Your task to perform on an android device: Show me popular videos on Youtube Image 0: 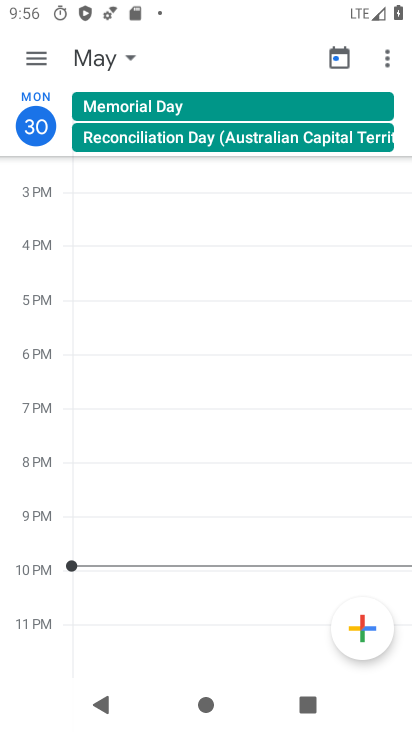
Step 0: press home button
Your task to perform on an android device: Show me popular videos on Youtube Image 1: 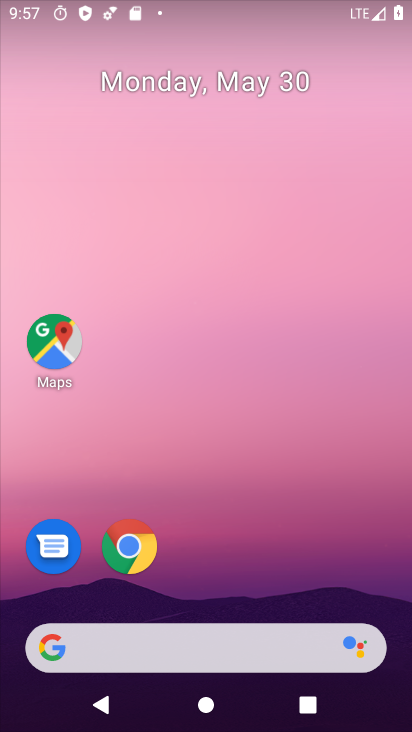
Step 1: drag from (214, 604) to (298, 165)
Your task to perform on an android device: Show me popular videos on Youtube Image 2: 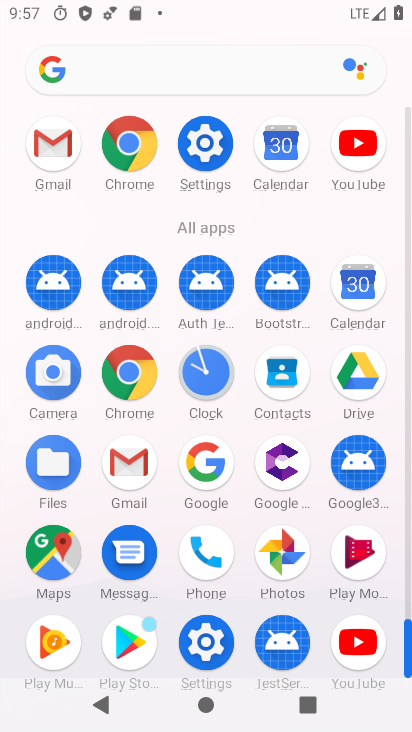
Step 2: click (366, 151)
Your task to perform on an android device: Show me popular videos on Youtube Image 3: 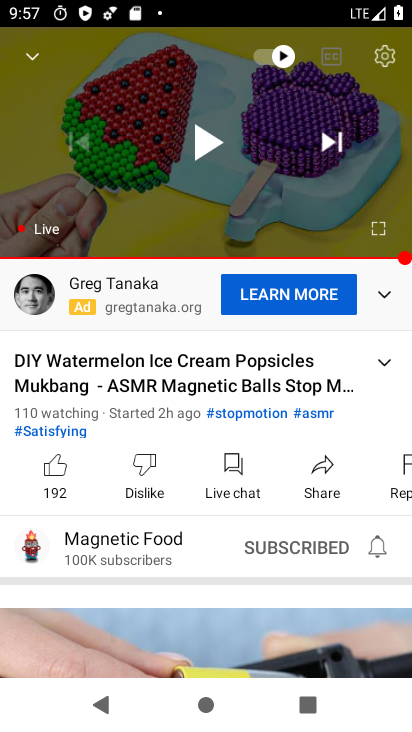
Step 3: click (31, 49)
Your task to perform on an android device: Show me popular videos on Youtube Image 4: 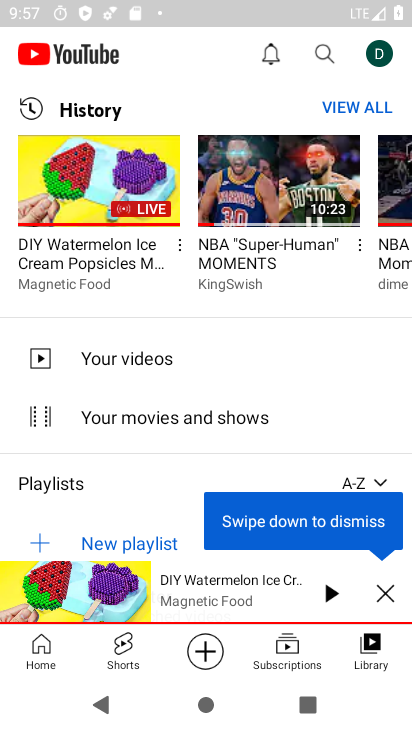
Step 4: click (18, 650)
Your task to perform on an android device: Show me popular videos on Youtube Image 5: 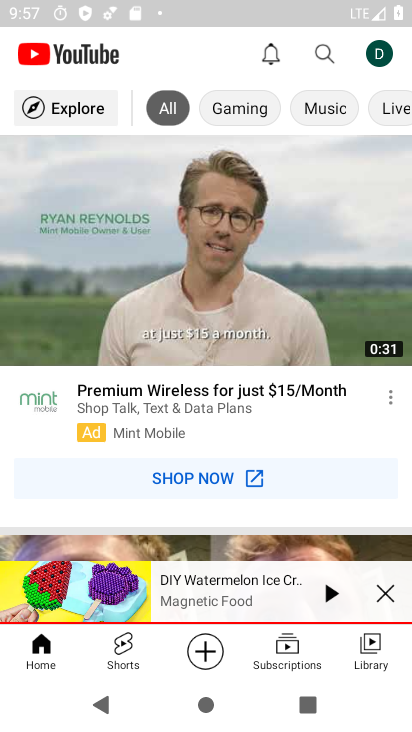
Step 5: click (68, 120)
Your task to perform on an android device: Show me popular videos on Youtube Image 6: 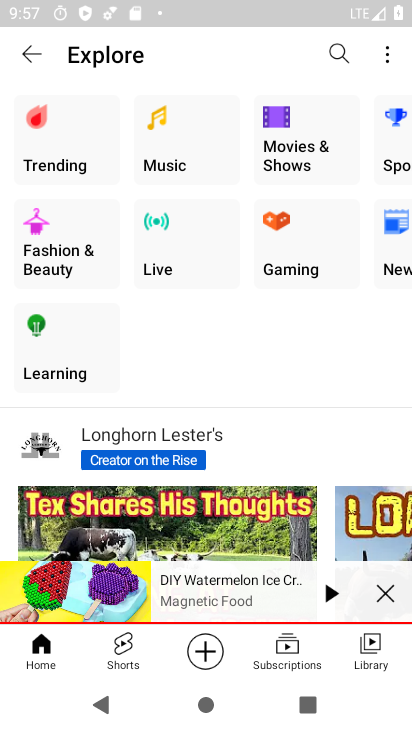
Step 6: click (79, 152)
Your task to perform on an android device: Show me popular videos on Youtube Image 7: 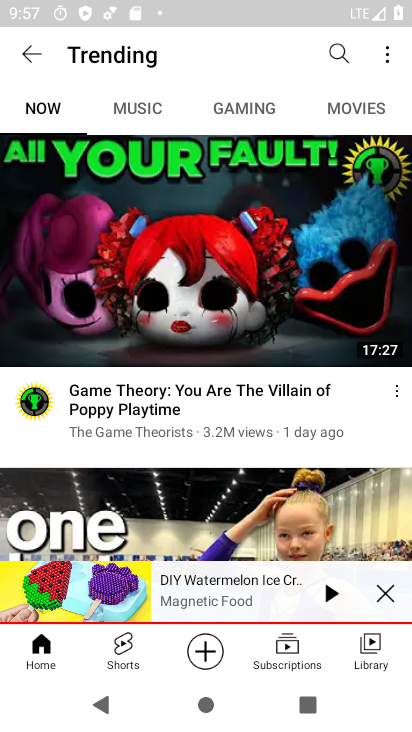
Step 7: task complete